Your task to perform on an android device: Go to Android settings Image 0: 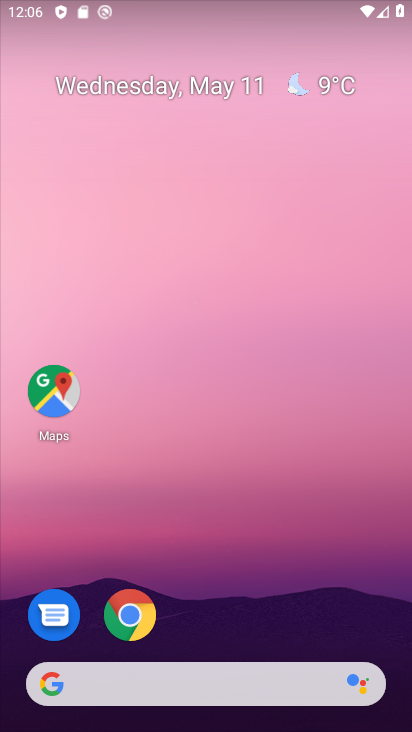
Step 0: drag from (225, 590) to (180, 172)
Your task to perform on an android device: Go to Android settings Image 1: 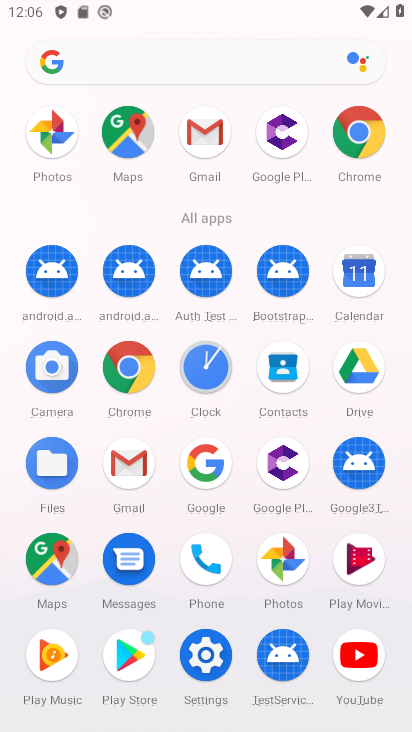
Step 1: click (200, 659)
Your task to perform on an android device: Go to Android settings Image 2: 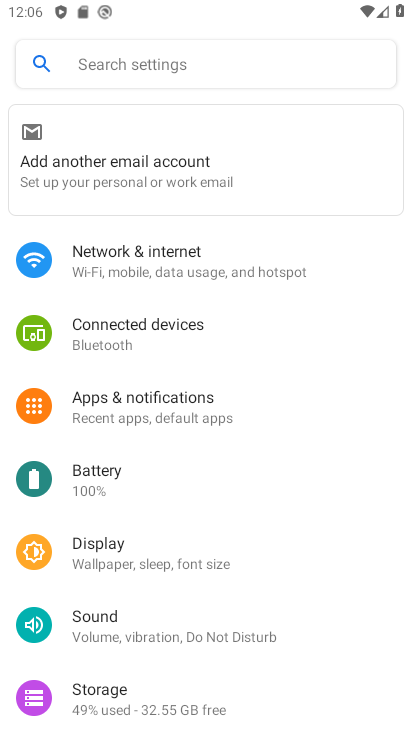
Step 2: task complete